Your task to perform on an android device: open app "DuckDuckGo Privacy Browser" Image 0: 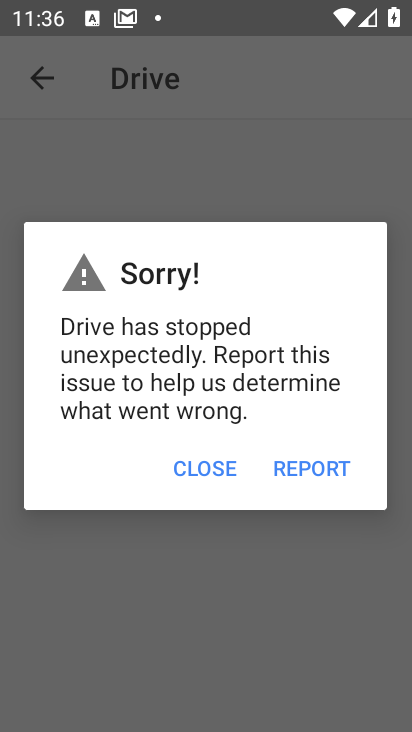
Step 0: click (207, 465)
Your task to perform on an android device: open app "DuckDuckGo Privacy Browser" Image 1: 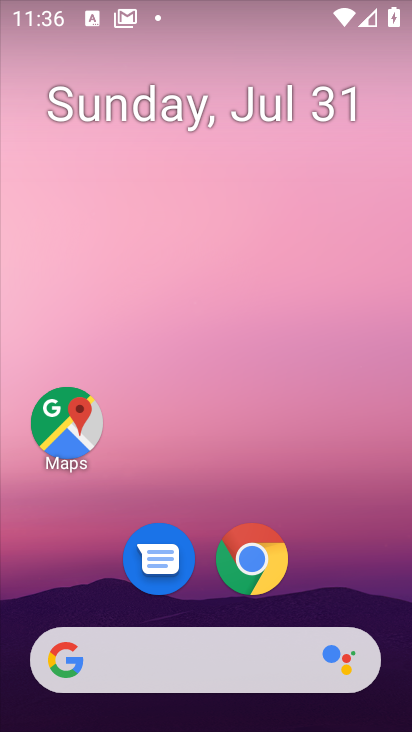
Step 1: drag from (93, 504) to (179, 62)
Your task to perform on an android device: open app "DuckDuckGo Privacy Browser" Image 2: 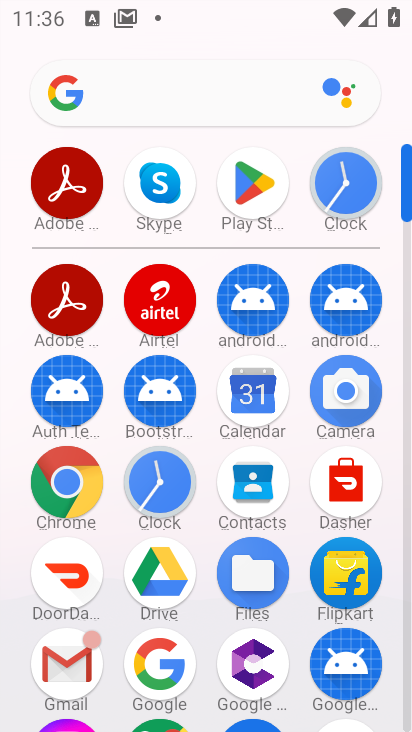
Step 2: click (254, 204)
Your task to perform on an android device: open app "DuckDuckGo Privacy Browser" Image 3: 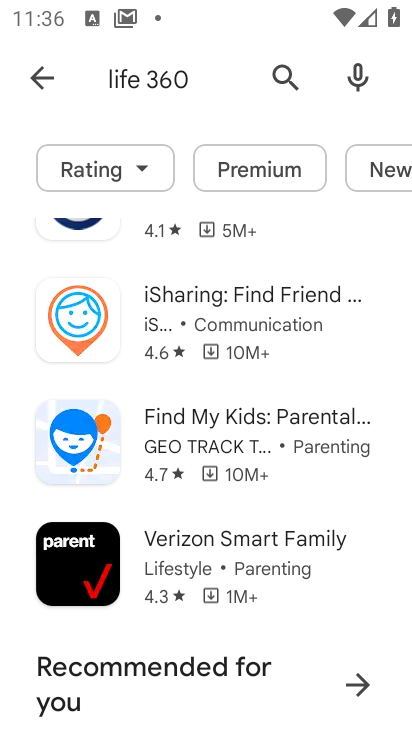
Step 3: click (257, 68)
Your task to perform on an android device: open app "DuckDuckGo Privacy Browser" Image 4: 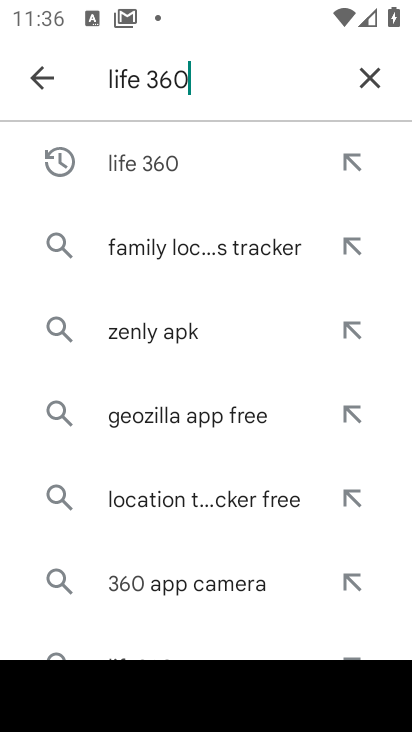
Step 4: click (384, 79)
Your task to perform on an android device: open app "DuckDuckGo Privacy Browser" Image 5: 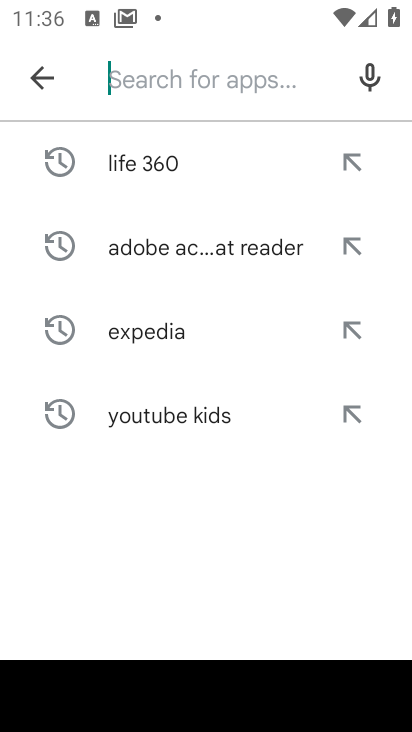
Step 5: click (176, 84)
Your task to perform on an android device: open app "DuckDuckGo Privacy Browser" Image 6: 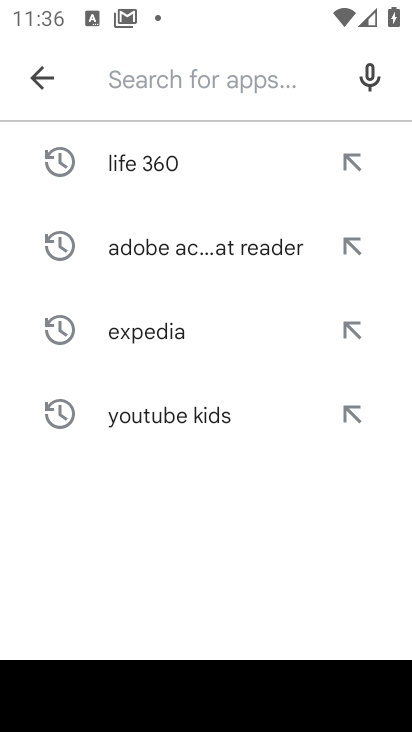
Step 6: type "duckduckgo"
Your task to perform on an android device: open app "DuckDuckGo Privacy Browser" Image 7: 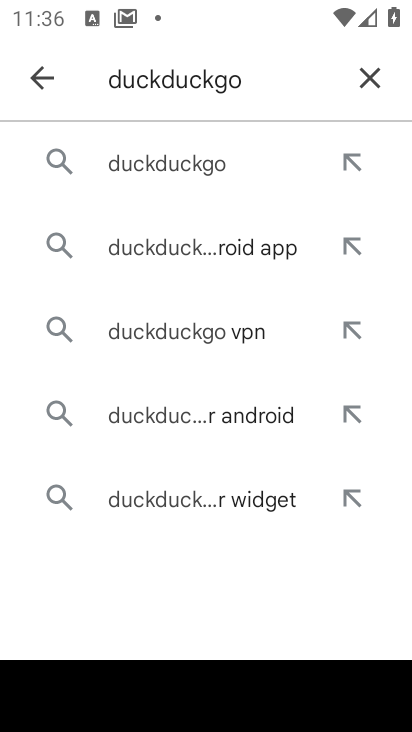
Step 7: click (202, 168)
Your task to perform on an android device: open app "DuckDuckGo Privacy Browser" Image 8: 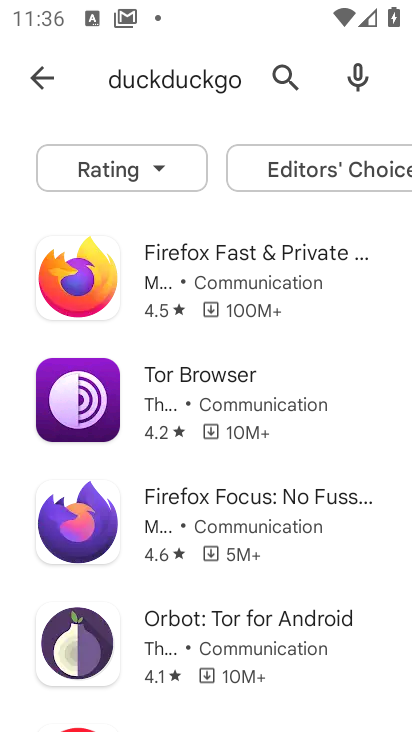
Step 8: task complete